Your task to perform on an android device: snooze an email in the gmail app Image 0: 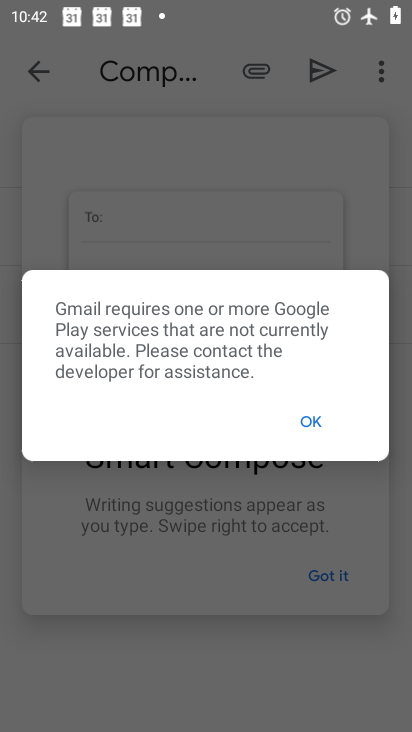
Step 0: press home button
Your task to perform on an android device: snooze an email in the gmail app Image 1: 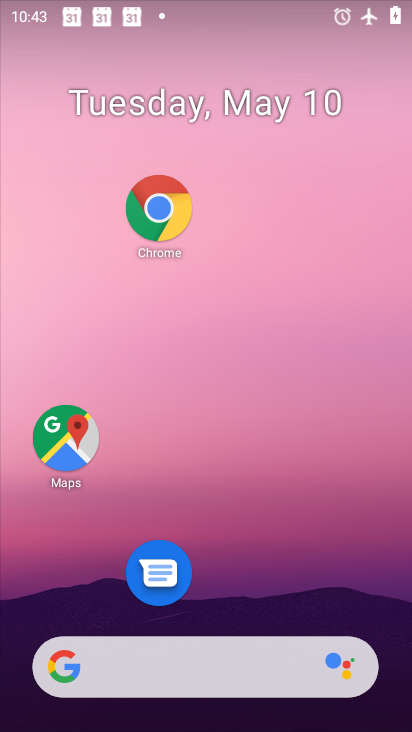
Step 1: drag from (284, 701) to (299, 222)
Your task to perform on an android device: snooze an email in the gmail app Image 2: 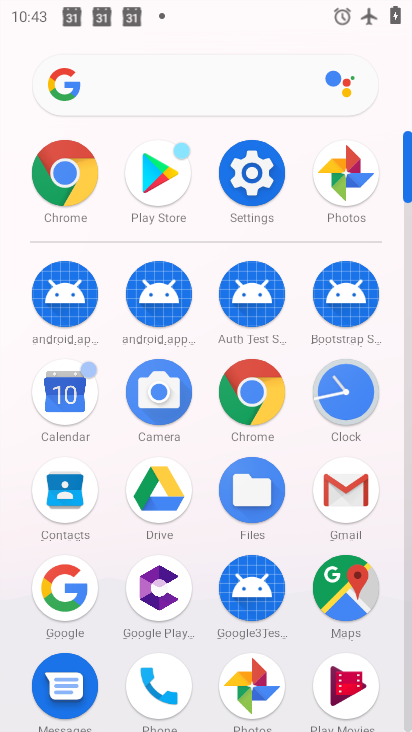
Step 2: click (355, 469)
Your task to perform on an android device: snooze an email in the gmail app Image 3: 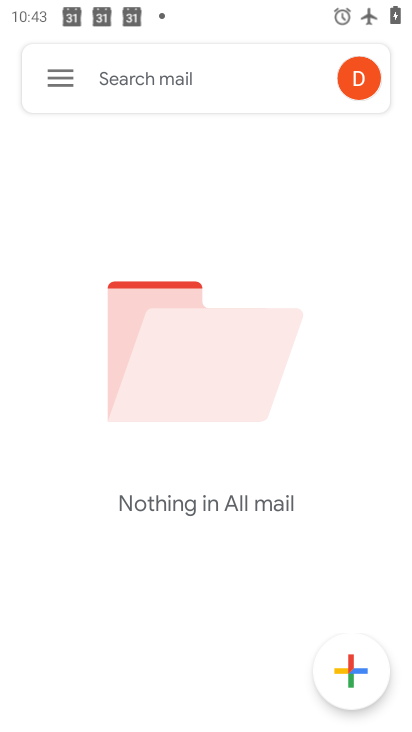
Step 3: click (48, 82)
Your task to perform on an android device: snooze an email in the gmail app Image 4: 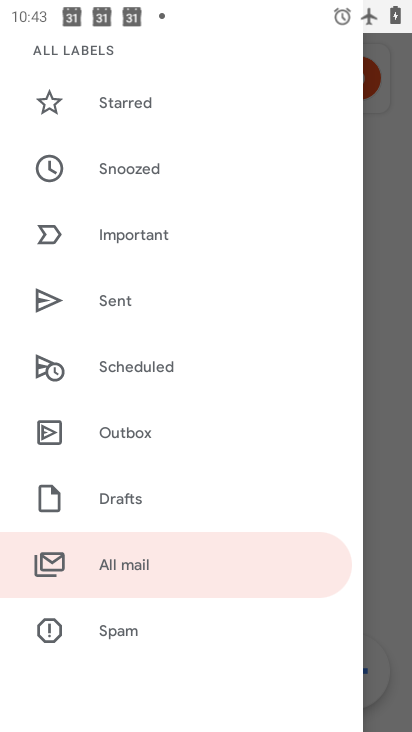
Step 4: click (147, 162)
Your task to perform on an android device: snooze an email in the gmail app Image 5: 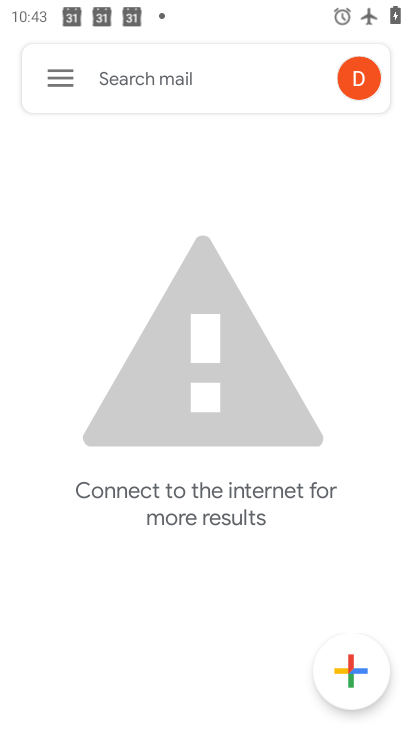
Step 5: task complete